Your task to perform on an android device: turn pop-ups on in chrome Image 0: 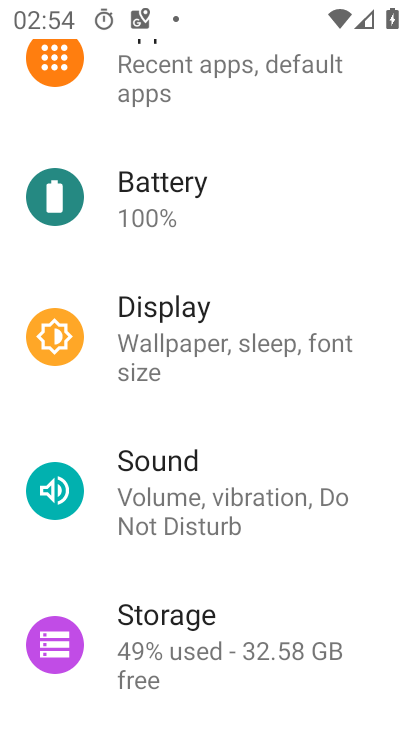
Step 0: press home button
Your task to perform on an android device: turn pop-ups on in chrome Image 1: 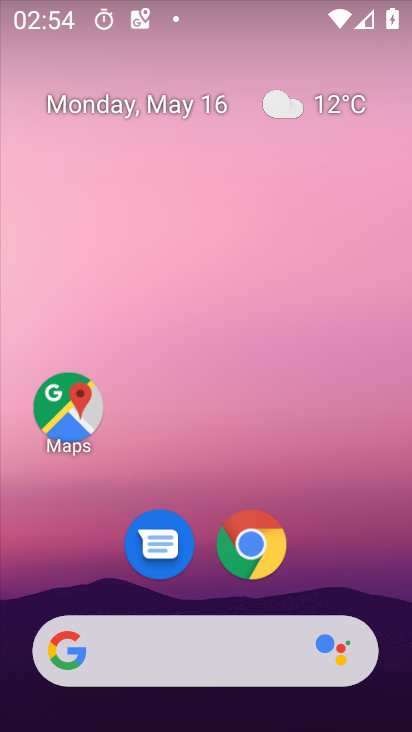
Step 1: click (247, 544)
Your task to perform on an android device: turn pop-ups on in chrome Image 2: 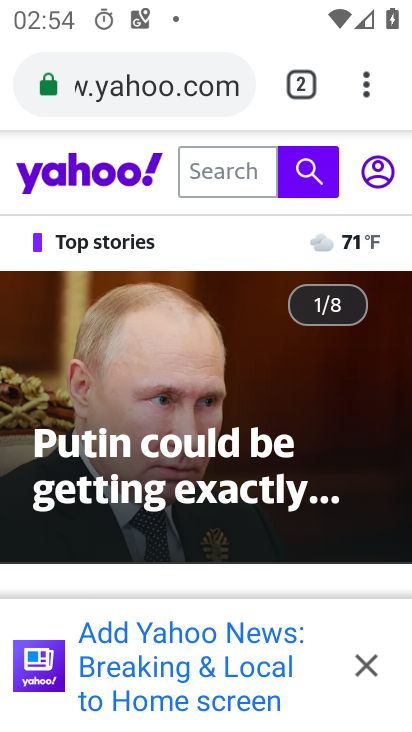
Step 2: click (366, 91)
Your task to perform on an android device: turn pop-ups on in chrome Image 3: 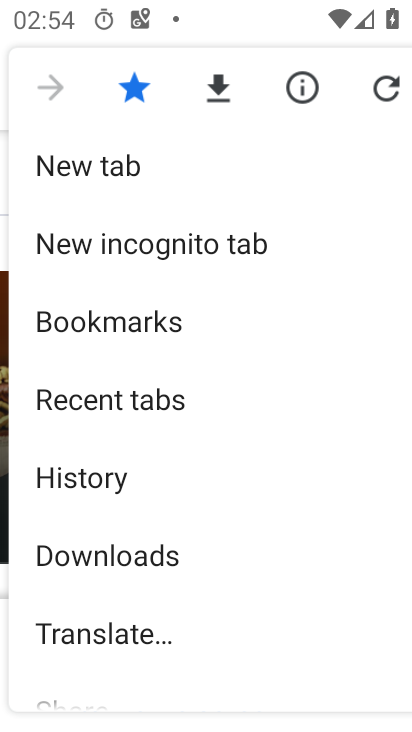
Step 3: drag from (112, 597) to (117, 252)
Your task to perform on an android device: turn pop-ups on in chrome Image 4: 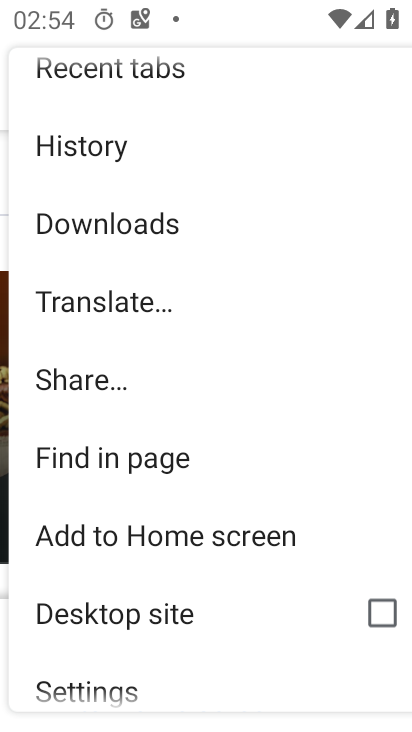
Step 4: drag from (106, 662) to (129, 235)
Your task to perform on an android device: turn pop-ups on in chrome Image 5: 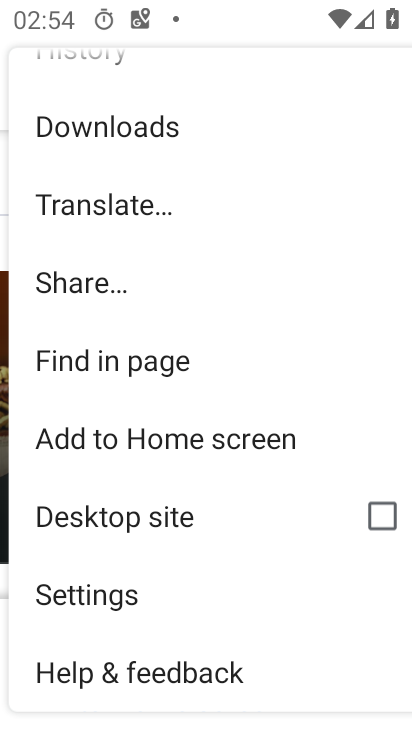
Step 5: click (107, 592)
Your task to perform on an android device: turn pop-ups on in chrome Image 6: 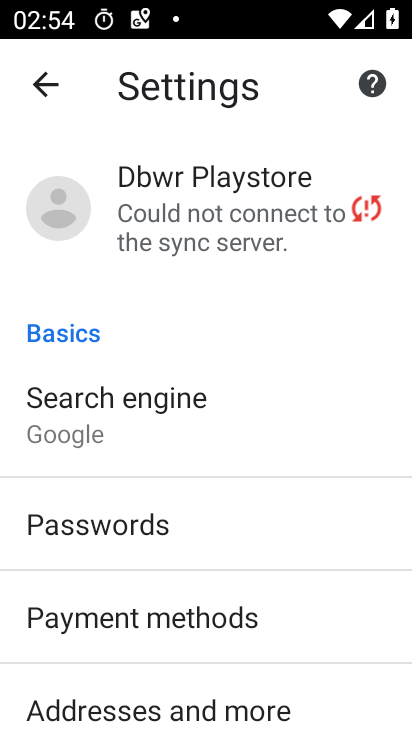
Step 6: drag from (213, 685) to (214, 245)
Your task to perform on an android device: turn pop-ups on in chrome Image 7: 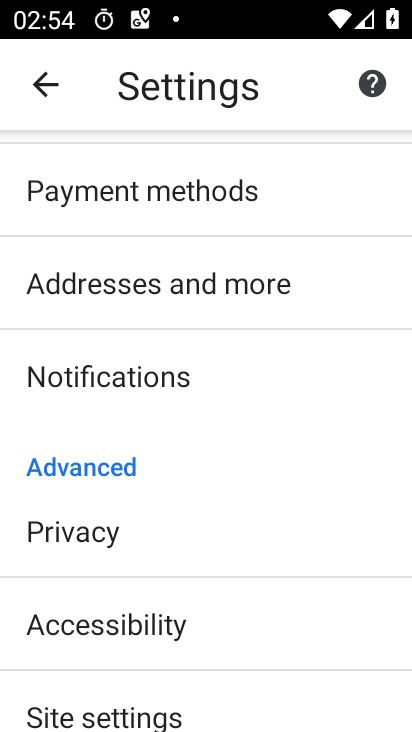
Step 7: drag from (161, 681) to (235, 299)
Your task to perform on an android device: turn pop-ups on in chrome Image 8: 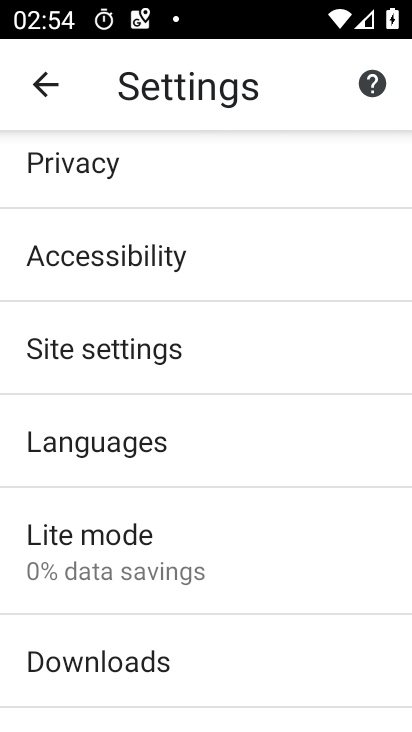
Step 8: click (136, 343)
Your task to perform on an android device: turn pop-ups on in chrome Image 9: 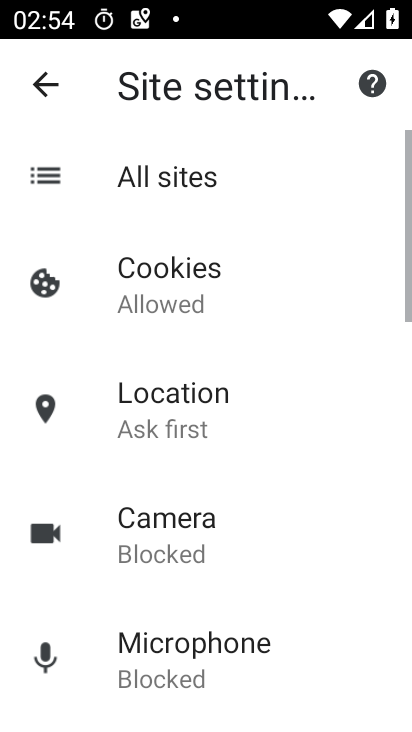
Step 9: drag from (162, 654) to (194, 274)
Your task to perform on an android device: turn pop-ups on in chrome Image 10: 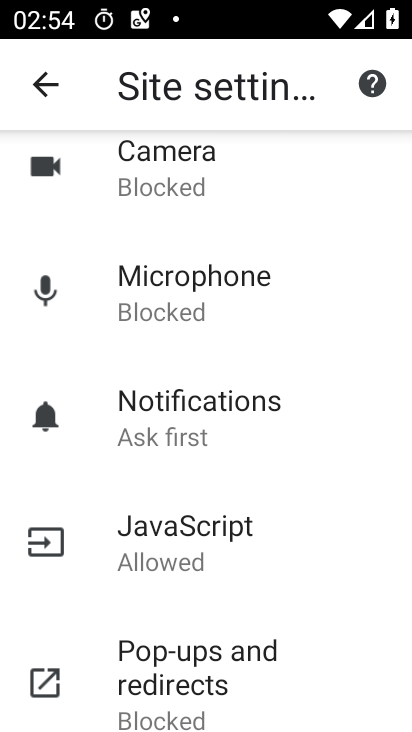
Step 10: click (169, 666)
Your task to perform on an android device: turn pop-ups on in chrome Image 11: 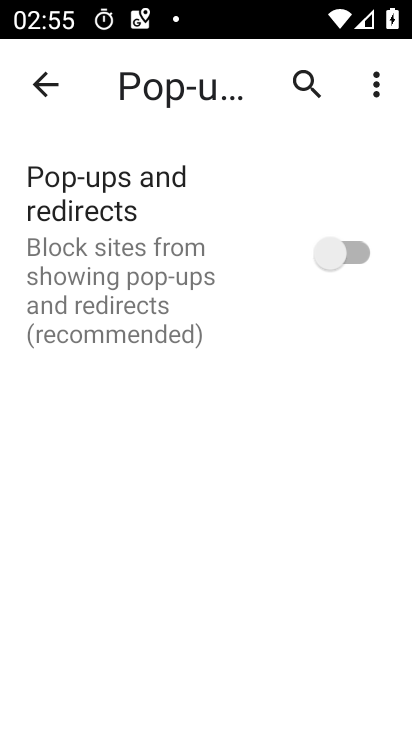
Step 11: click (356, 246)
Your task to perform on an android device: turn pop-ups on in chrome Image 12: 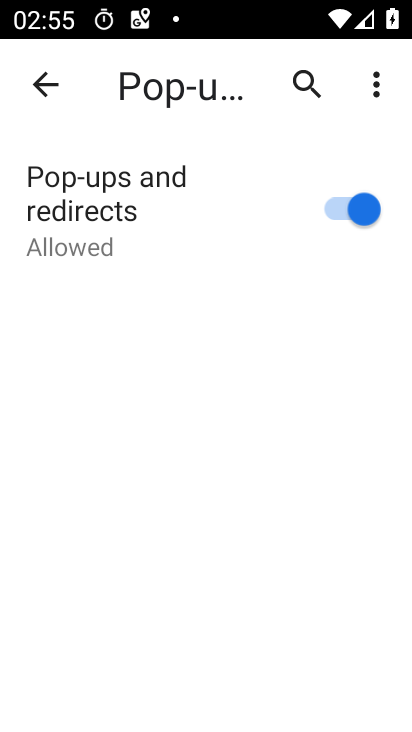
Step 12: task complete